Your task to perform on an android device: toggle wifi Image 0: 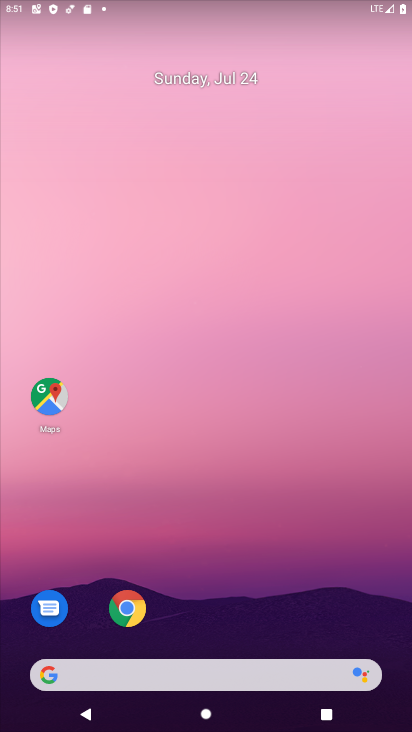
Step 0: drag from (208, 616) to (288, 0)
Your task to perform on an android device: toggle wifi Image 1: 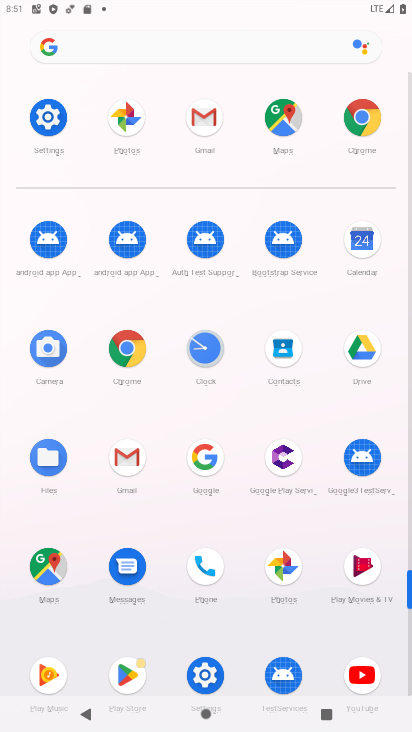
Step 1: click (208, 676)
Your task to perform on an android device: toggle wifi Image 2: 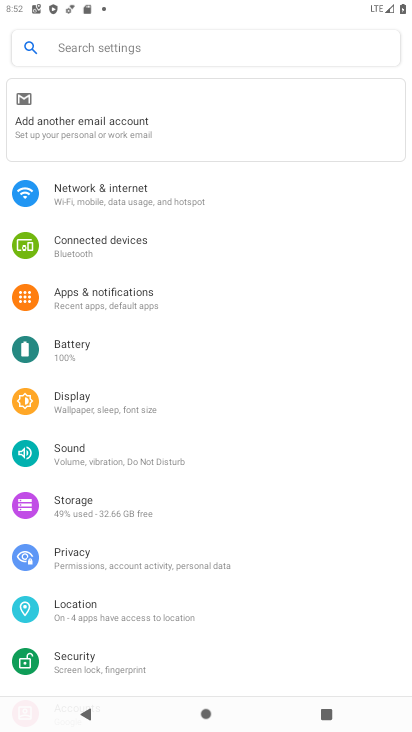
Step 2: click (141, 196)
Your task to perform on an android device: toggle wifi Image 3: 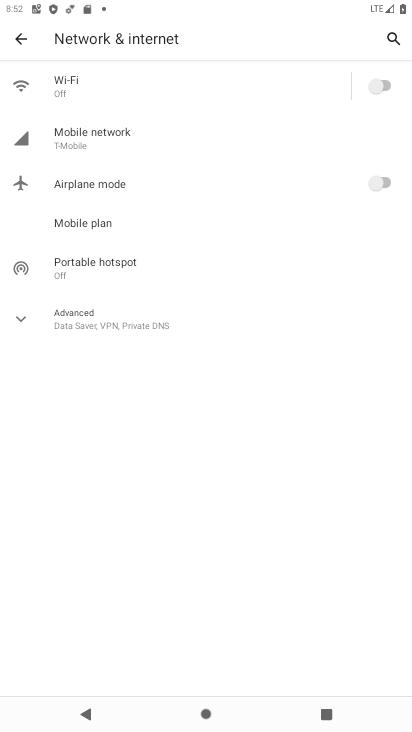
Step 3: click (383, 83)
Your task to perform on an android device: toggle wifi Image 4: 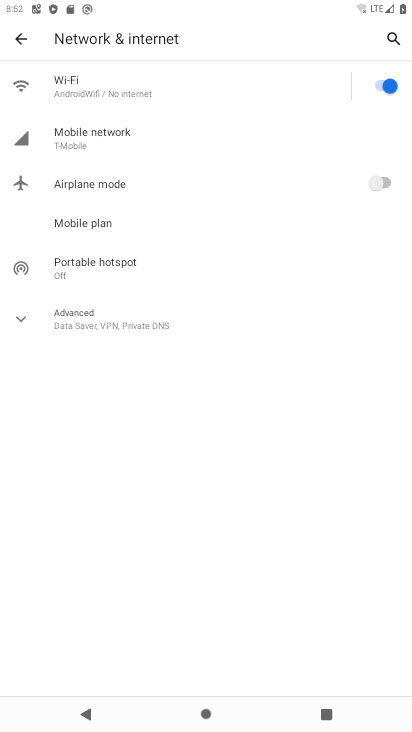
Step 4: task complete